Your task to perform on an android device: turn off airplane mode Image 0: 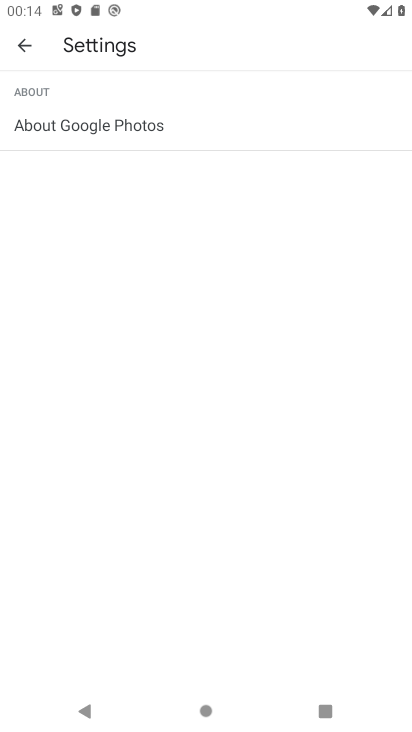
Step 0: press home button
Your task to perform on an android device: turn off airplane mode Image 1: 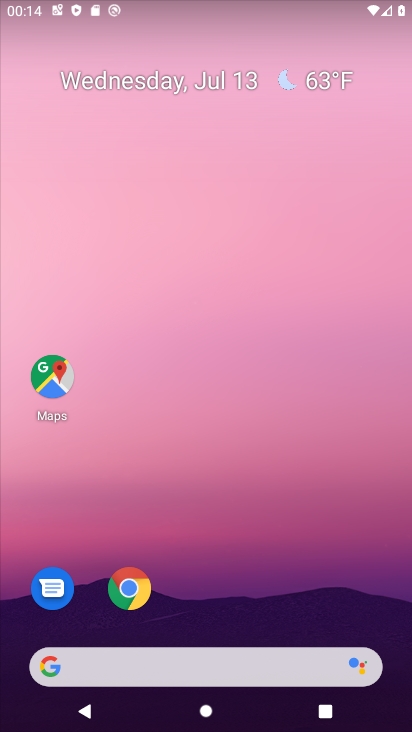
Step 1: drag from (44, 692) to (351, 221)
Your task to perform on an android device: turn off airplane mode Image 2: 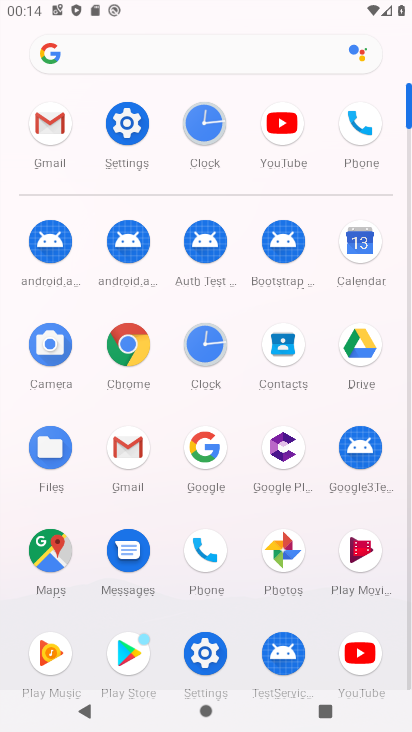
Step 2: click (203, 644)
Your task to perform on an android device: turn off airplane mode Image 3: 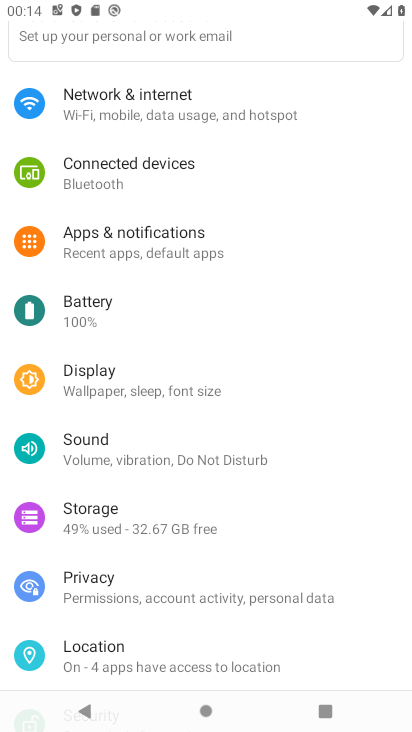
Step 3: click (138, 107)
Your task to perform on an android device: turn off airplane mode Image 4: 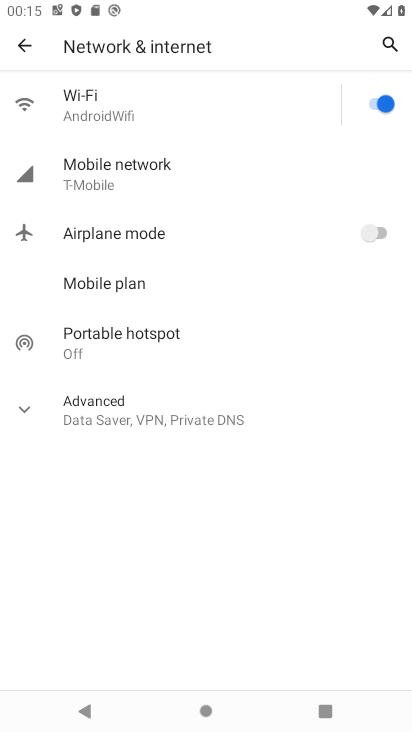
Step 4: task complete